Your task to perform on an android device: turn off data saver in the chrome app Image 0: 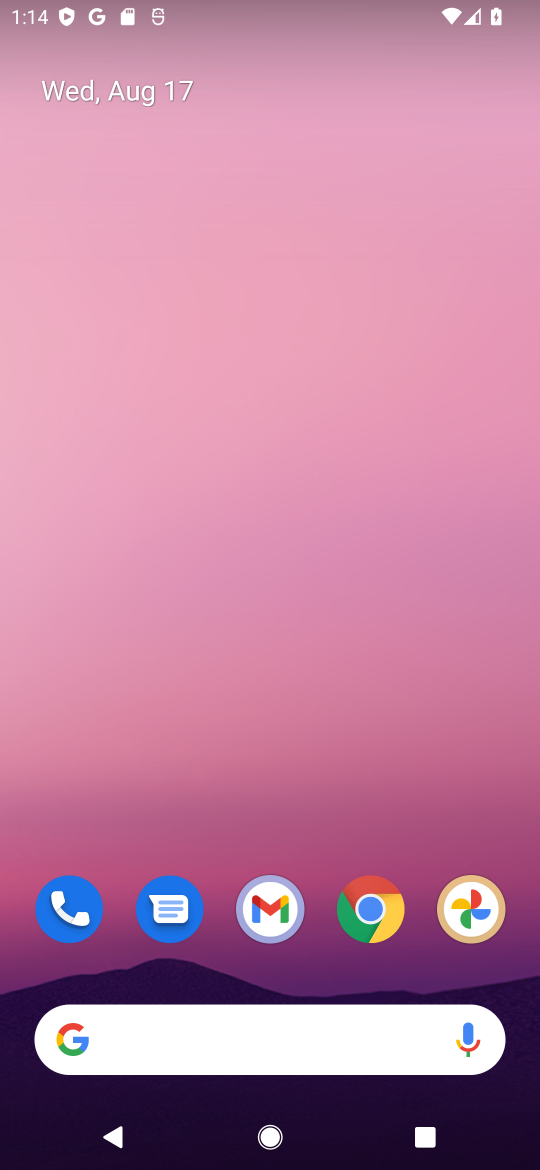
Step 0: click (365, 907)
Your task to perform on an android device: turn off data saver in the chrome app Image 1: 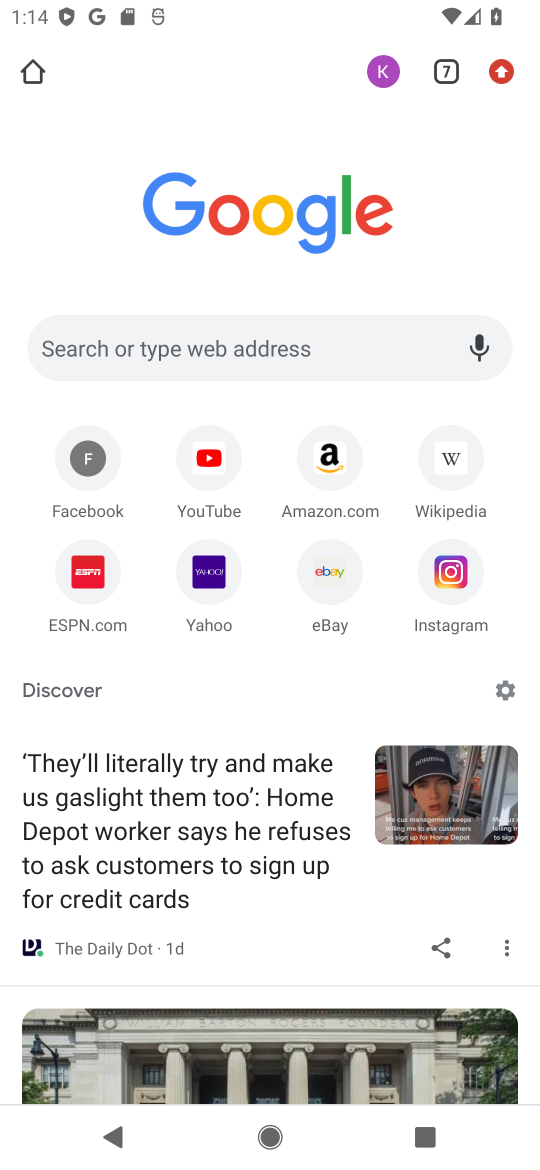
Step 1: click (500, 74)
Your task to perform on an android device: turn off data saver in the chrome app Image 2: 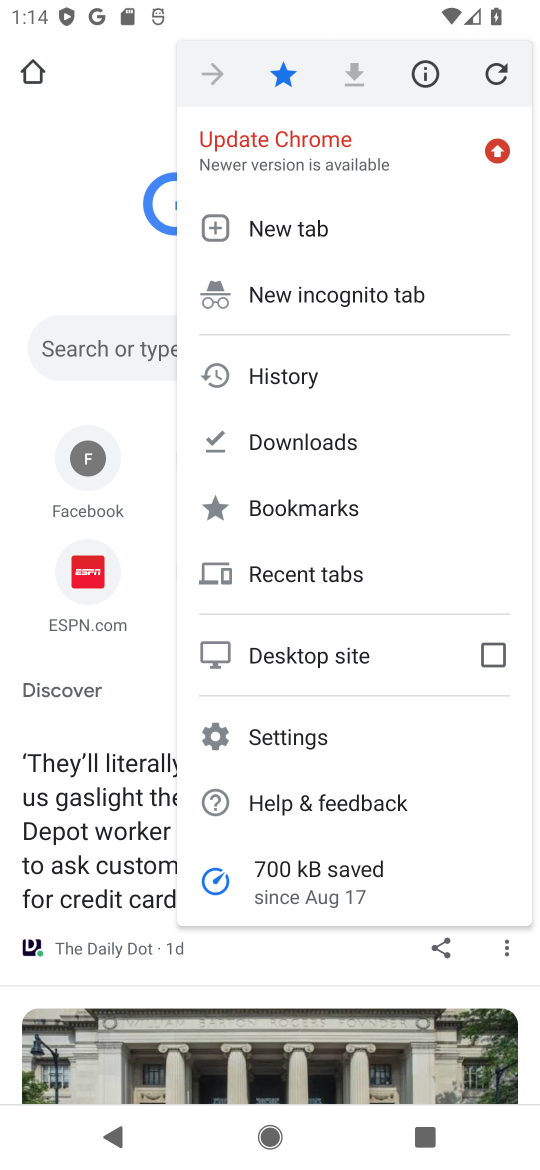
Step 2: click (306, 719)
Your task to perform on an android device: turn off data saver in the chrome app Image 3: 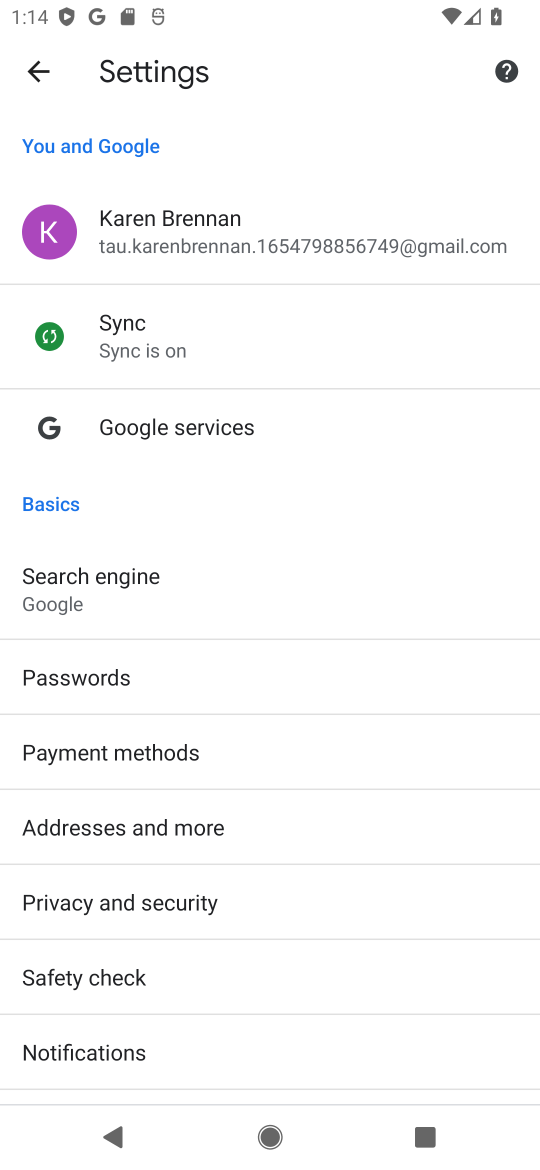
Step 3: drag from (201, 978) to (175, 484)
Your task to perform on an android device: turn off data saver in the chrome app Image 4: 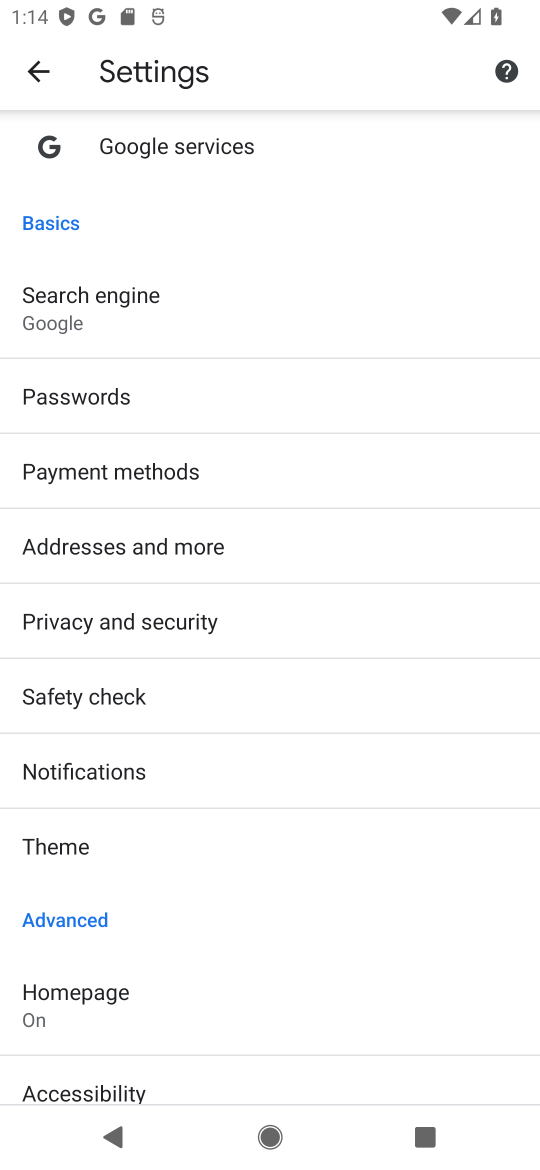
Step 4: drag from (246, 918) to (233, 305)
Your task to perform on an android device: turn off data saver in the chrome app Image 5: 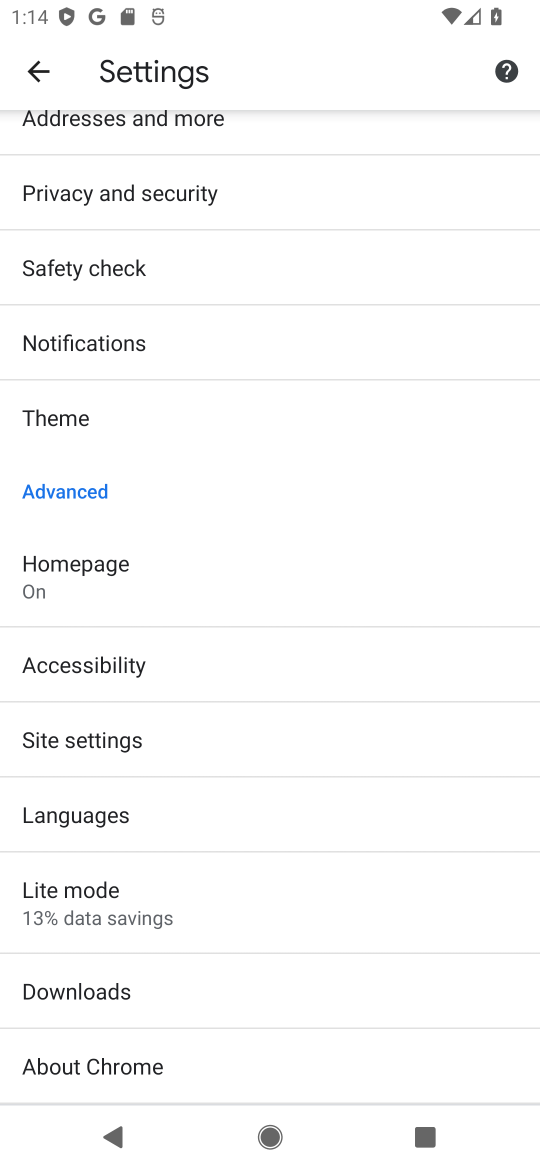
Step 5: click (56, 889)
Your task to perform on an android device: turn off data saver in the chrome app Image 6: 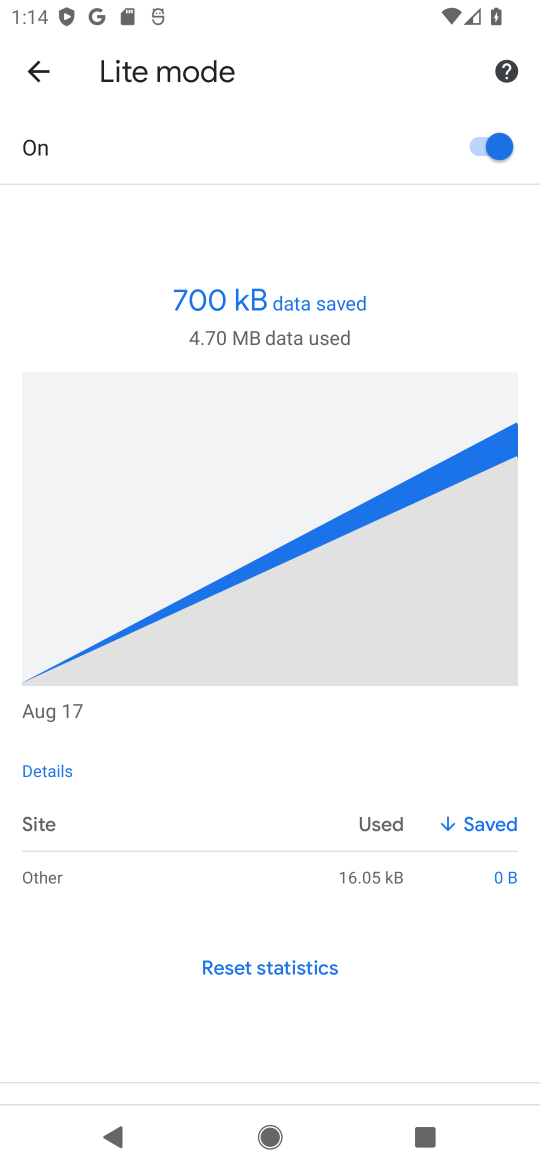
Step 6: click (496, 131)
Your task to perform on an android device: turn off data saver in the chrome app Image 7: 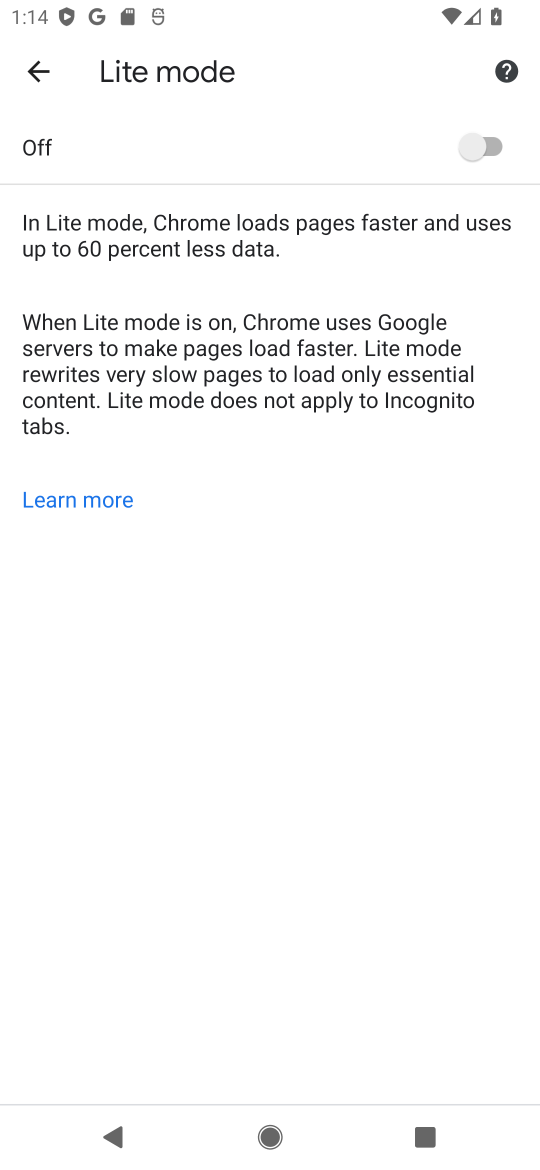
Step 7: task complete